Your task to perform on an android device: toggle location history Image 0: 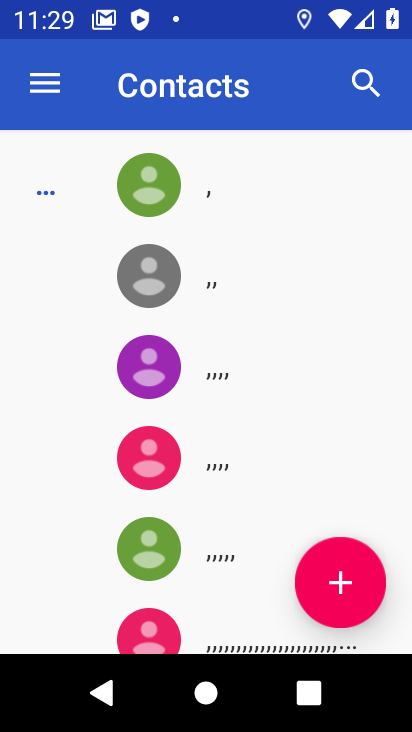
Step 0: press home button
Your task to perform on an android device: toggle location history Image 1: 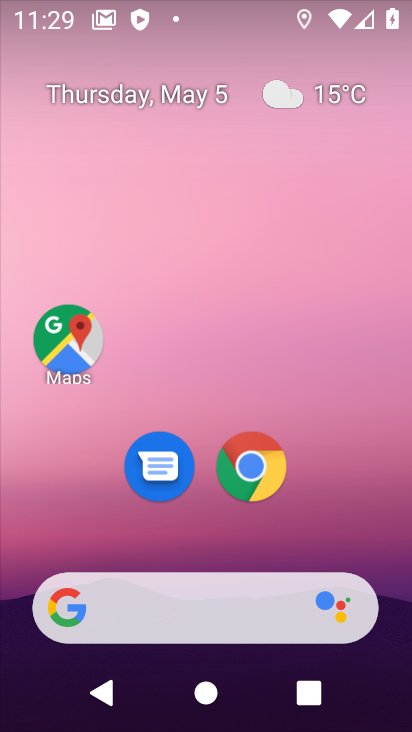
Step 1: drag from (195, 564) to (200, 178)
Your task to perform on an android device: toggle location history Image 2: 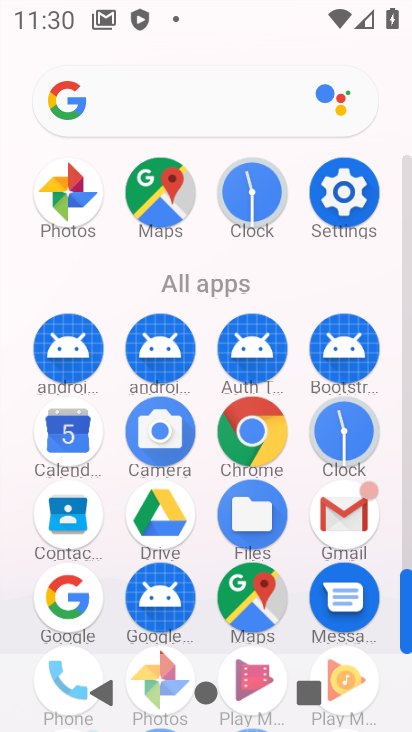
Step 2: click (349, 190)
Your task to perform on an android device: toggle location history Image 3: 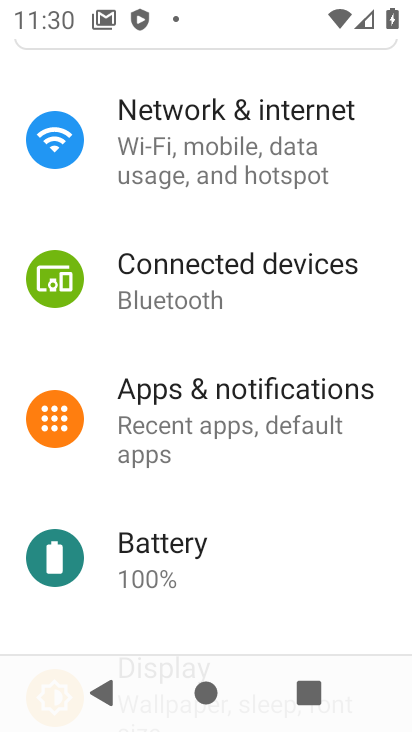
Step 3: drag from (248, 578) to (300, 148)
Your task to perform on an android device: toggle location history Image 4: 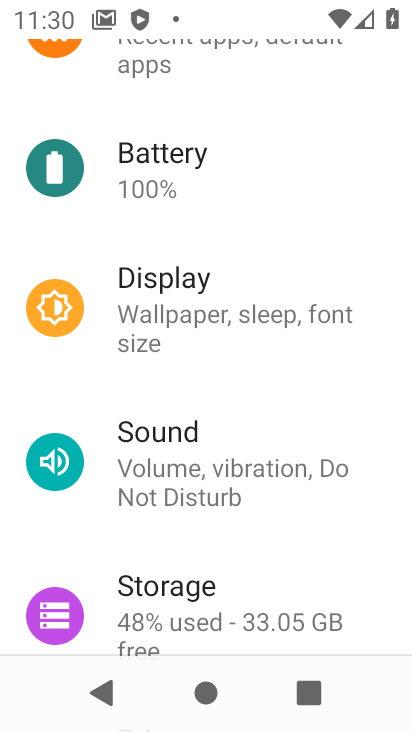
Step 4: drag from (185, 633) to (236, 198)
Your task to perform on an android device: toggle location history Image 5: 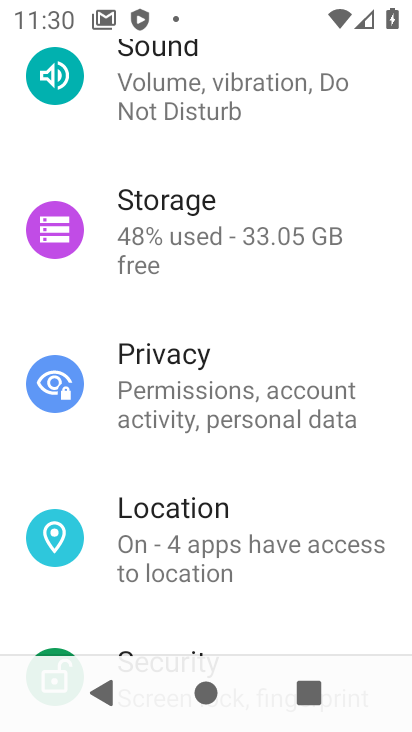
Step 5: click (204, 552)
Your task to perform on an android device: toggle location history Image 6: 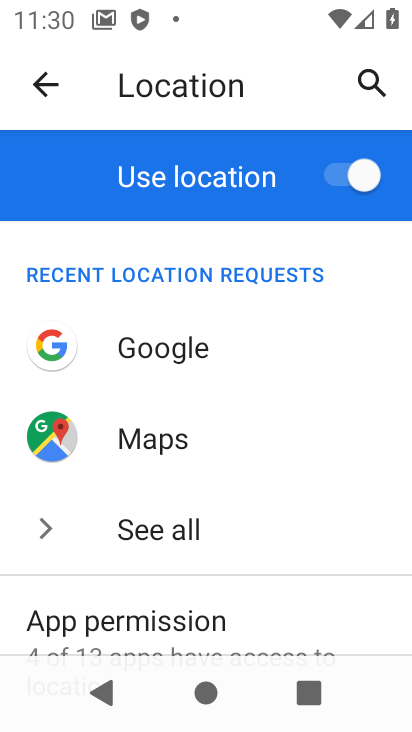
Step 6: click (339, 181)
Your task to perform on an android device: toggle location history Image 7: 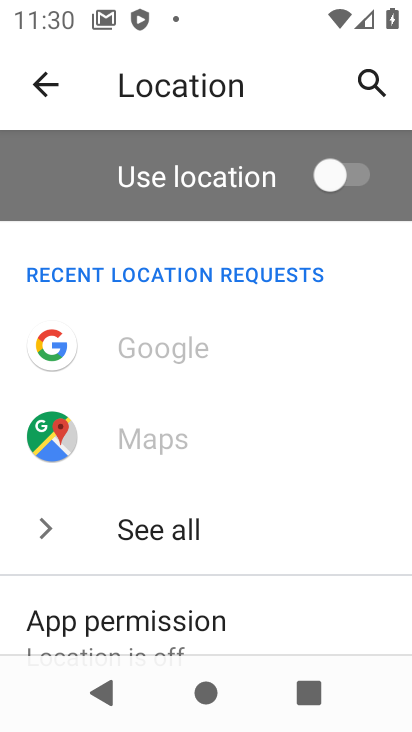
Step 7: task complete